Your task to perform on an android device: Go to wifi settings Image 0: 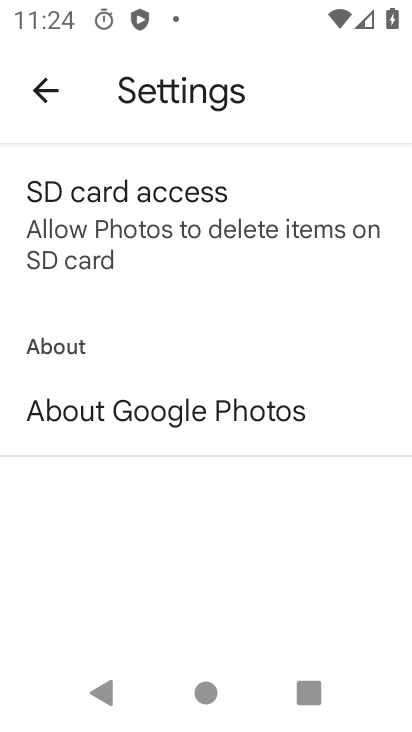
Step 0: press back button
Your task to perform on an android device: Go to wifi settings Image 1: 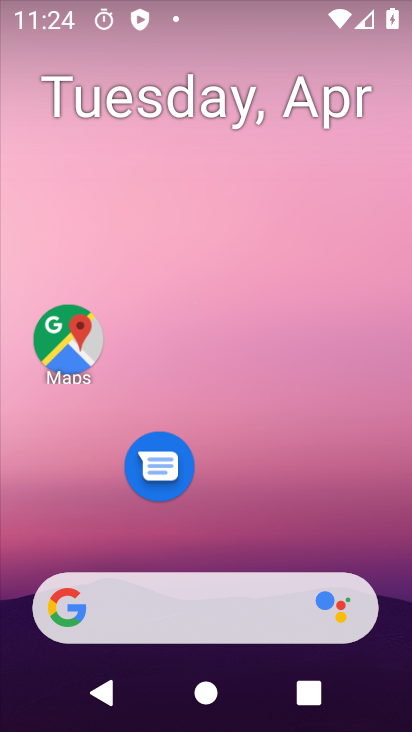
Step 1: drag from (289, 487) to (262, 111)
Your task to perform on an android device: Go to wifi settings Image 2: 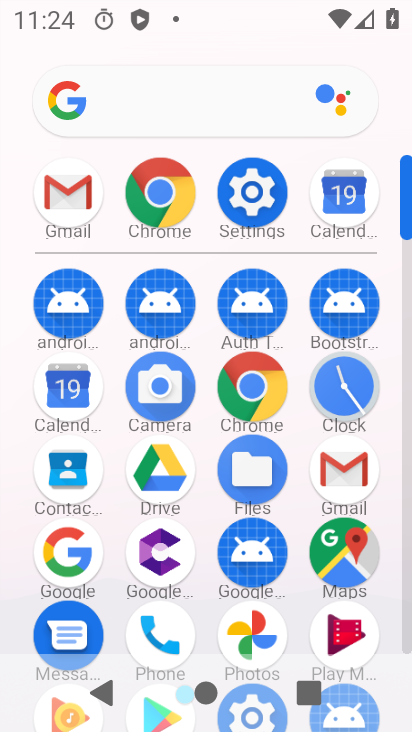
Step 2: click (267, 198)
Your task to perform on an android device: Go to wifi settings Image 3: 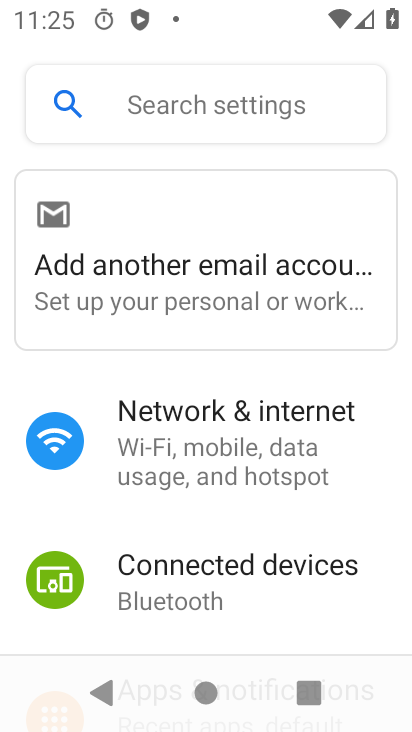
Step 3: click (224, 419)
Your task to perform on an android device: Go to wifi settings Image 4: 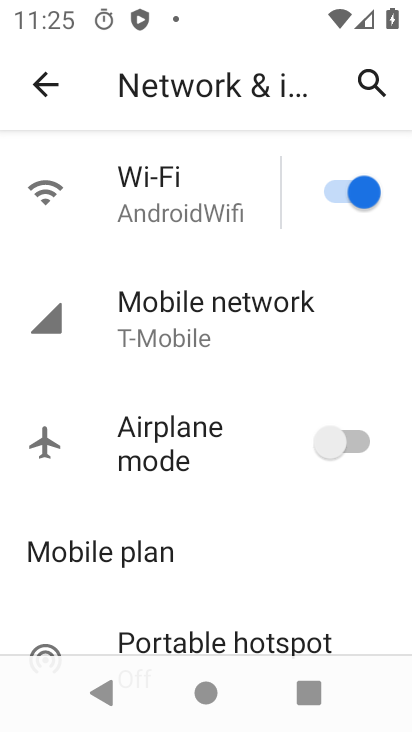
Step 4: click (198, 190)
Your task to perform on an android device: Go to wifi settings Image 5: 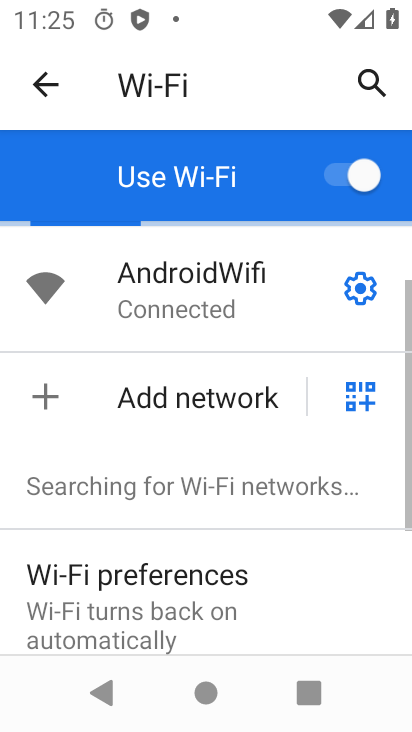
Step 5: task complete